Your task to perform on an android device: Open accessibility settings Image 0: 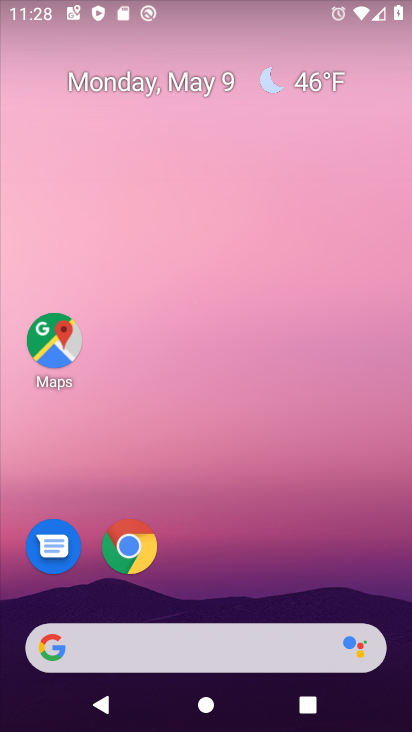
Step 0: drag from (330, 595) to (211, 0)
Your task to perform on an android device: Open accessibility settings Image 1: 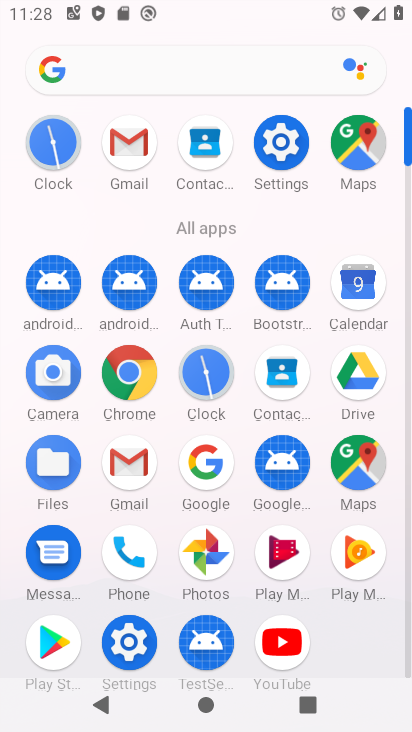
Step 1: click (284, 162)
Your task to perform on an android device: Open accessibility settings Image 2: 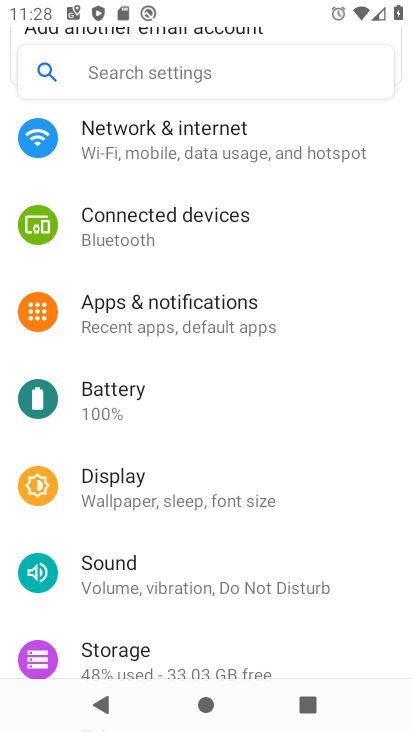
Step 2: drag from (345, 613) to (303, 188)
Your task to perform on an android device: Open accessibility settings Image 3: 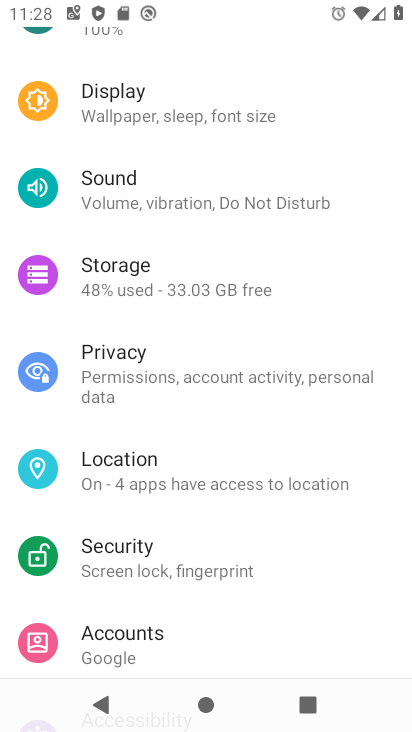
Step 3: drag from (314, 584) to (261, 194)
Your task to perform on an android device: Open accessibility settings Image 4: 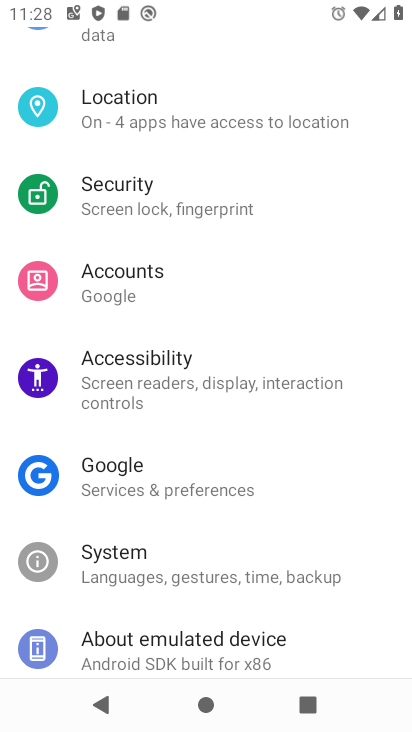
Step 4: click (122, 392)
Your task to perform on an android device: Open accessibility settings Image 5: 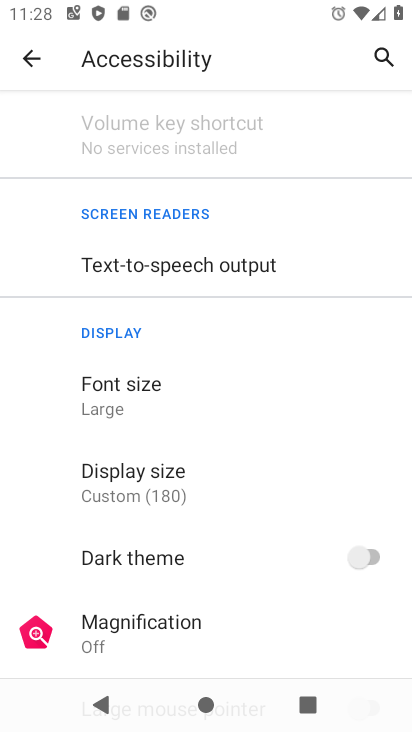
Step 5: task complete